Your task to perform on an android device: turn off notifications in google photos Image 0: 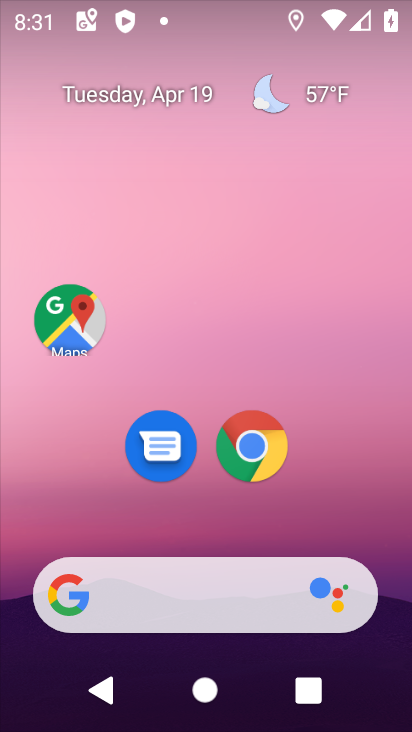
Step 0: drag from (330, 454) to (255, 109)
Your task to perform on an android device: turn off notifications in google photos Image 1: 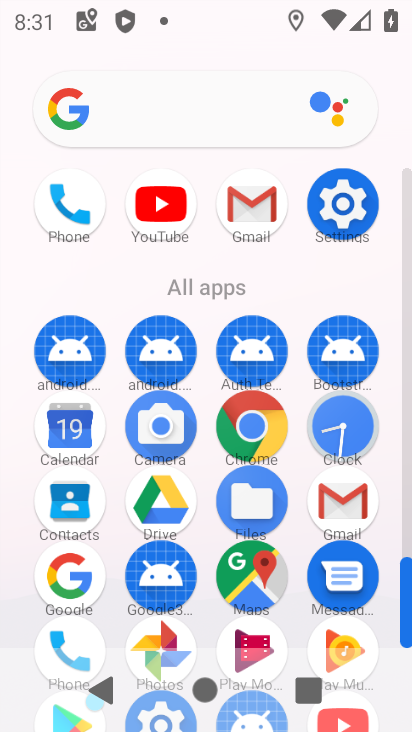
Step 1: drag from (200, 564) to (203, 246)
Your task to perform on an android device: turn off notifications in google photos Image 2: 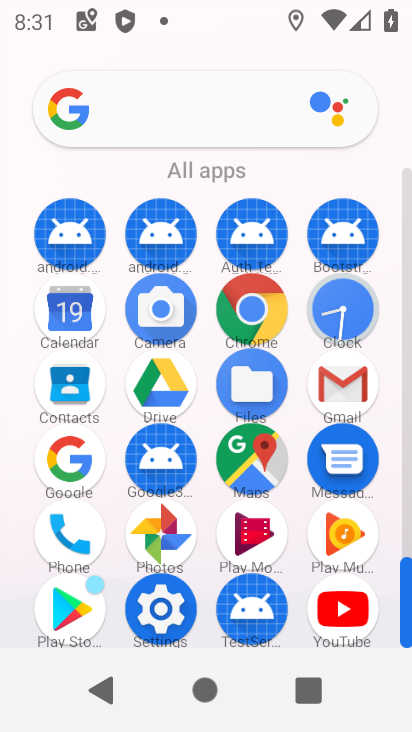
Step 2: click (159, 538)
Your task to perform on an android device: turn off notifications in google photos Image 3: 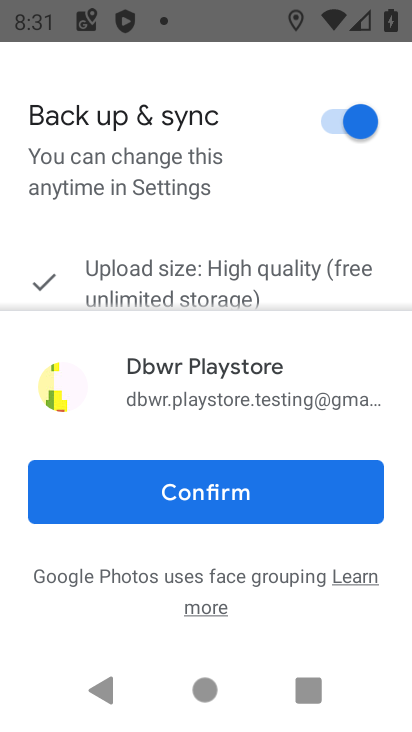
Step 3: click (207, 497)
Your task to perform on an android device: turn off notifications in google photos Image 4: 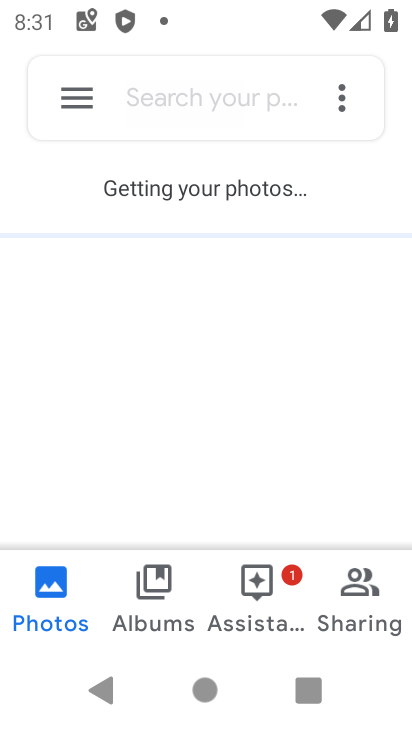
Step 4: click (340, 98)
Your task to perform on an android device: turn off notifications in google photos Image 5: 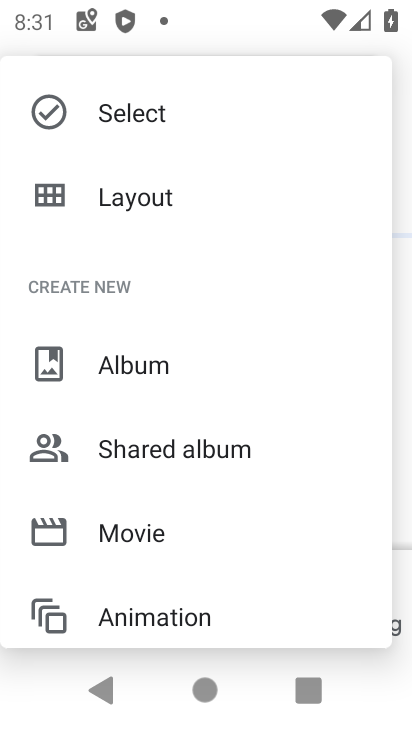
Step 5: drag from (274, 513) to (277, 99)
Your task to perform on an android device: turn off notifications in google photos Image 6: 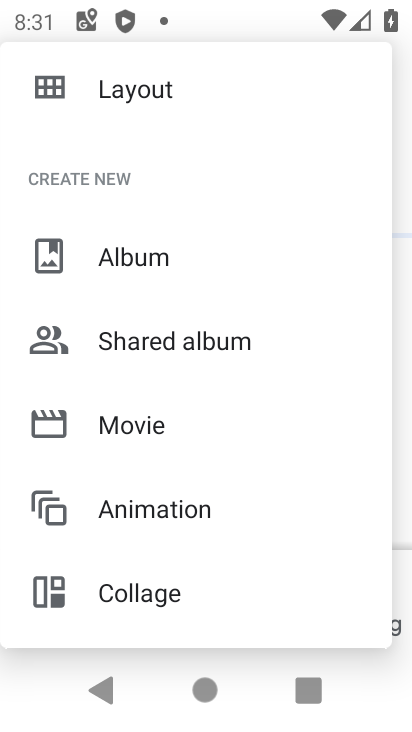
Step 6: press back button
Your task to perform on an android device: turn off notifications in google photos Image 7: 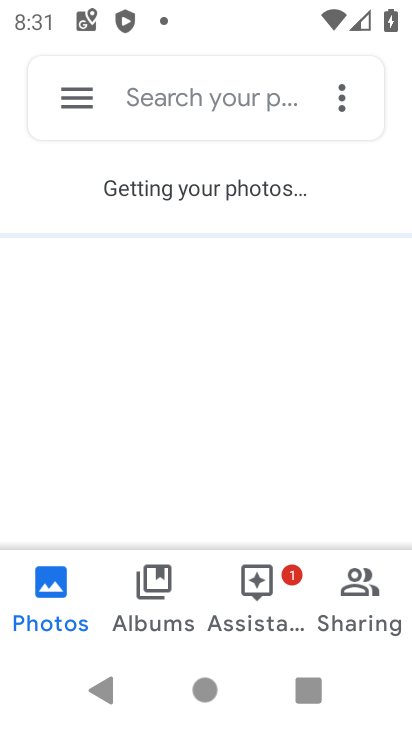
Step 7: click (67, 101)
Your task to perform on an android device: turn off notifications in google photos Image 8: 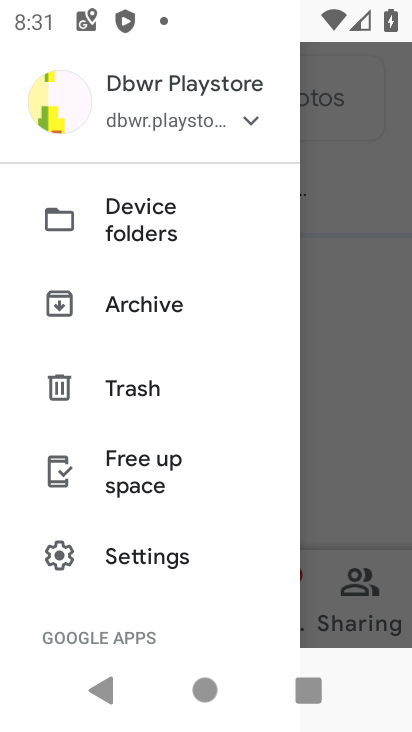
Step 8: click (120, 553)
Your task to perform on an android device: turn off notifications in google photos Image 9: 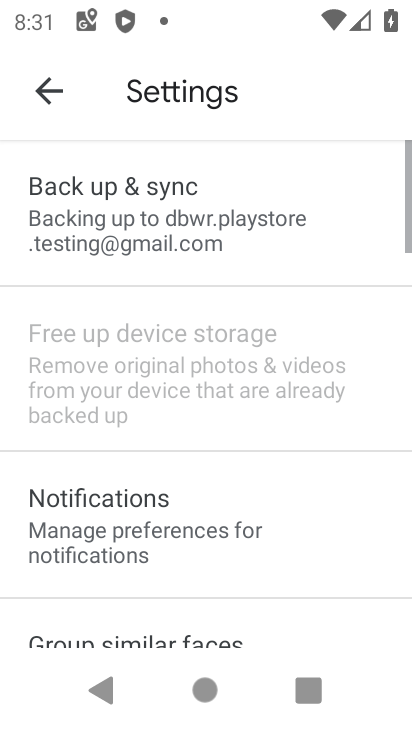
Step 9: click (120, 552)
Your task to perform on an android device: turn off notifications in google photos Image 10: 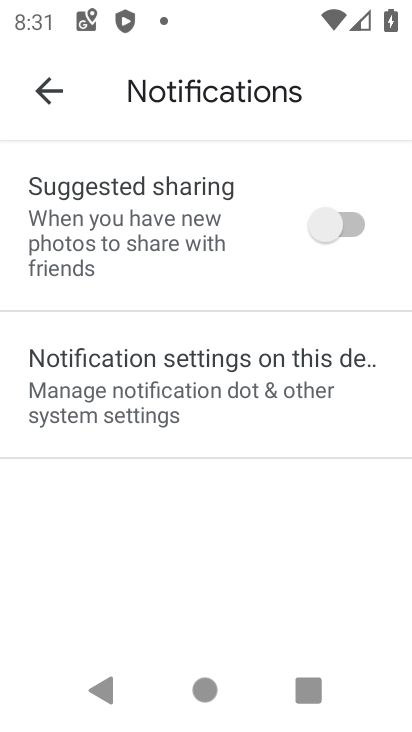
Step 10: click (122, 403)
Your task to perform on an android device: turn off notifications in google photos Image 11: 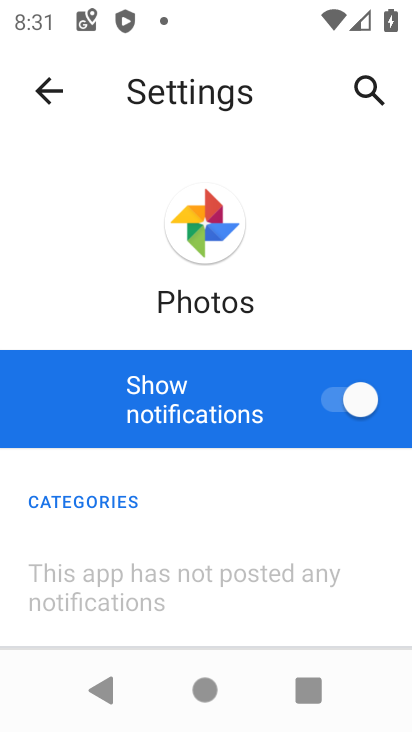
Step 11: click (363, 401)
Your task to perform on an android device: turn off notifications in google photos Image 12: 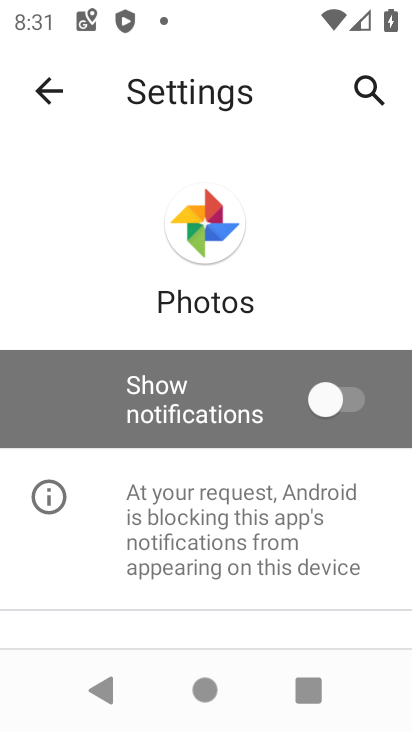
Step 12: task complete